Your task to perform on an android device: Open Google Chrome and click the shortcut for Amazon.com Image 0: 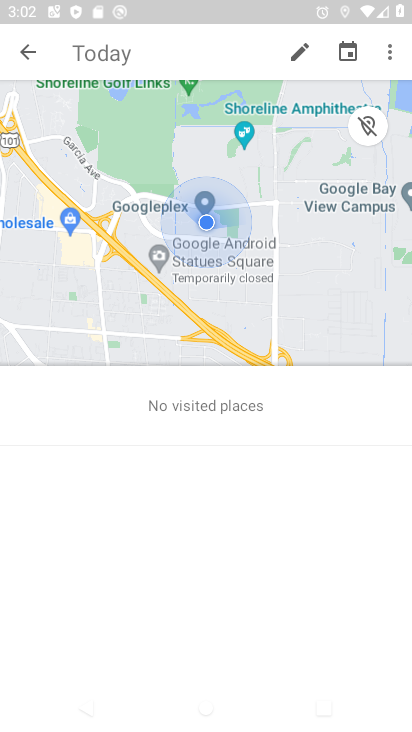
Step 0: press home button
Your task to perform on an android device: Open Google Chrome and click the shortcut for Amazon.com Image 1: 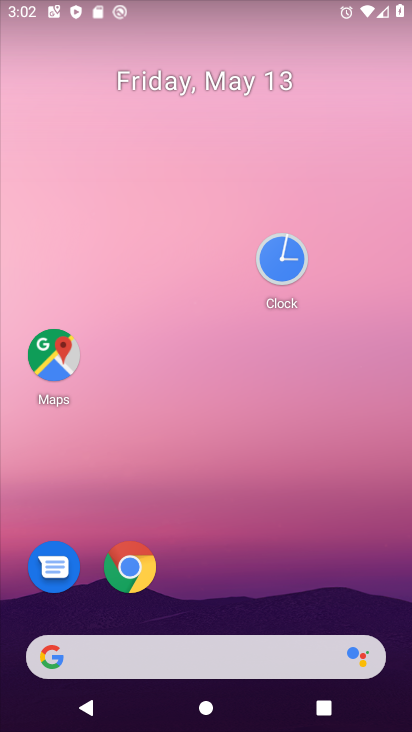
Step 1: click (140, 583)
Your task to perform on an android device: Open Google Chrome and click the shortcut for Amazon.com Image 2: 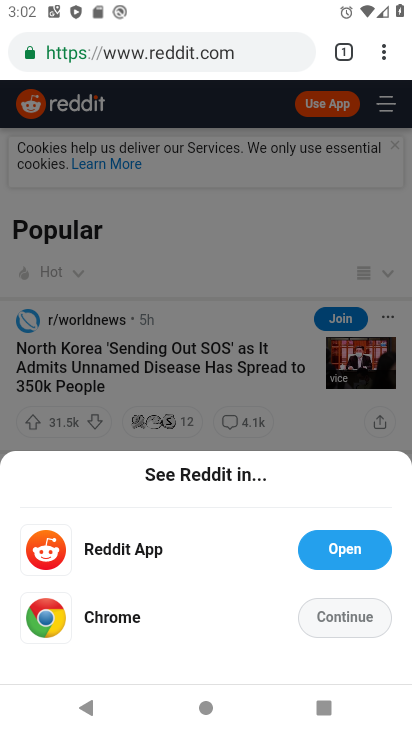
Step 2: click (125, 657)
Your task to perform on an android device: Open Google Chrome and click the shortcut for Amazon.com Image 3: 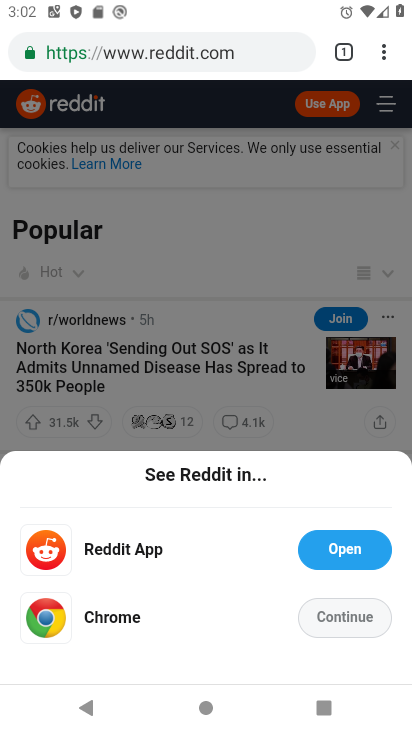
Step 3: click (133, 611)
Your task to perform on an android device: Open Google Chrome and click the shortcut for Amazon.com Image 4: 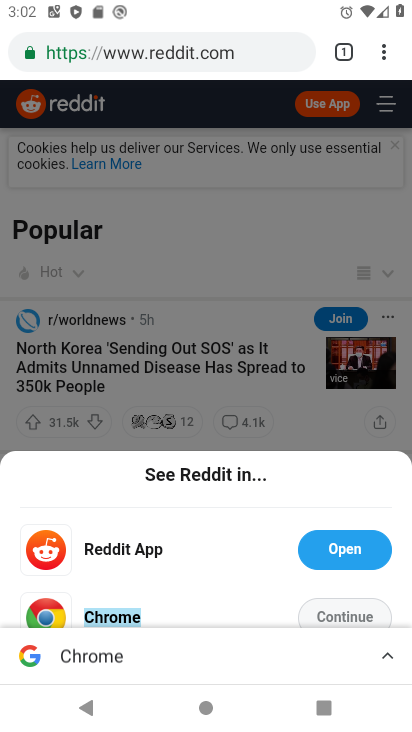
Step 4: click (358, 615)
Your task to perform on an android device: Open Google Chrome and click the shortcut for Amazon.com Image 5: 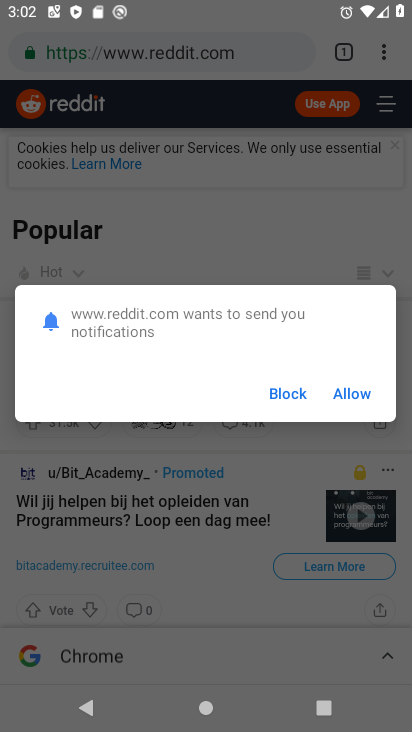
Step 5: click (339, 380)
Your task to perform on an android device: Open Google Chrome and click the shortcut for Amazon.com Image 6: 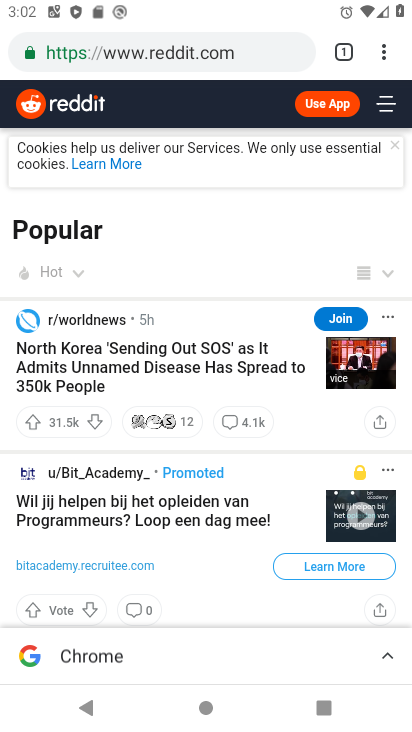
Step 6: click (249, 52)
Your task to perform on an android device: Open Google Chrome and click the shortcut for Amazon.com Image 7: 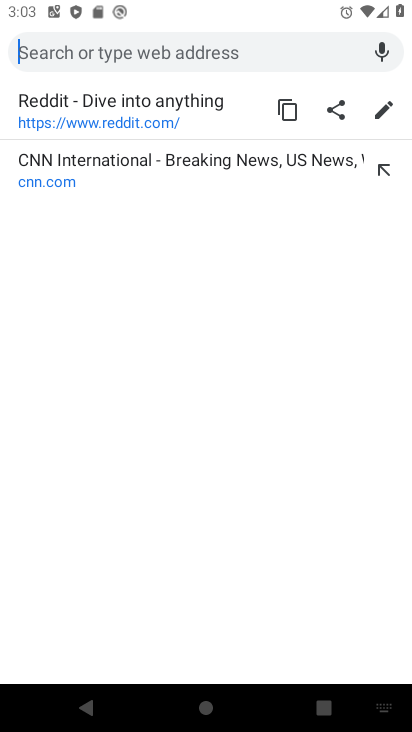
Step 7: press back button
Your task to perform on an android device: Open Google Chrome and click the shortcut for Amazon.com Image 8: 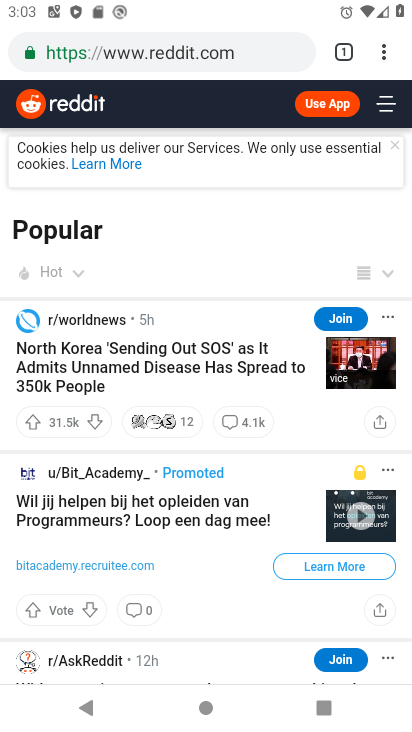
Step 8: press back button
Your task to perform on an android device: Open Google Chrome and click the shortcut for Amazon.com Image 9: 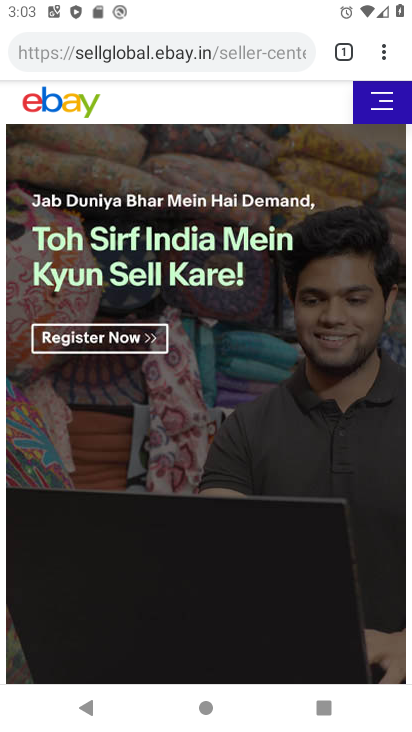
Step 9: press back button
Your task to perform on an android device: Open Google Chrome and click the shortcut for Amazon.com Image 10: 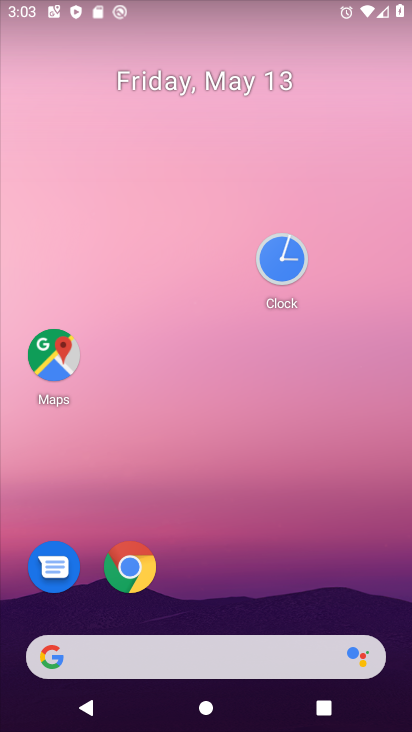
Step 10: click (137, 564)
Your task to perform on an android device: Open Google Chrome and click the shortcut for Amazon.com Image 11: 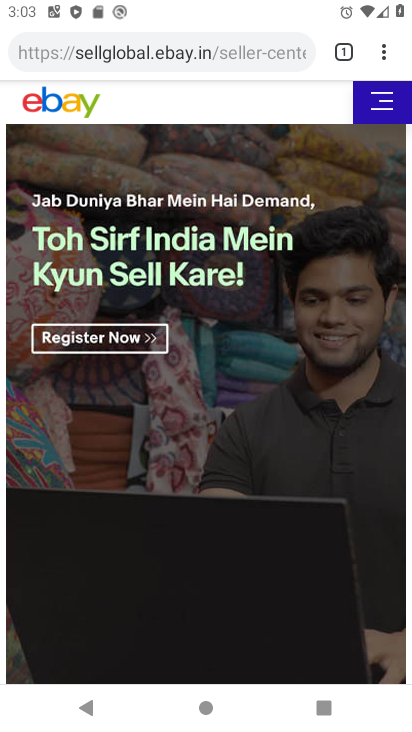
Step 11: click (338, 43)
Your task to perform on an android device: Open Google Chrome and click the shortcut for Amazon.com Image 12: 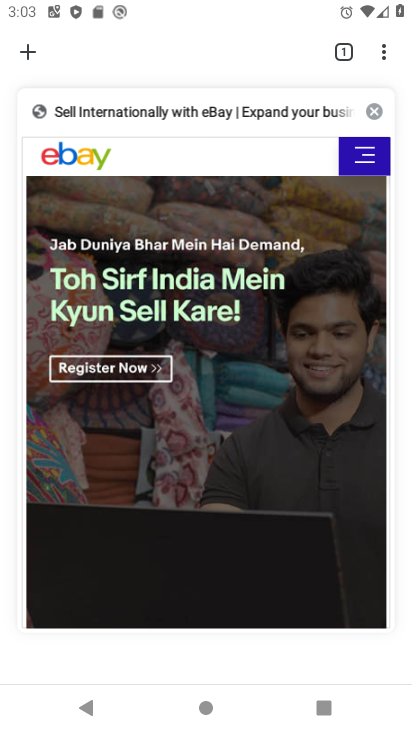
Step 12: click (34, 49)
Your task to perform on an android device: Open Google Chrome and click the shortcut for Amazon.com Image 13: 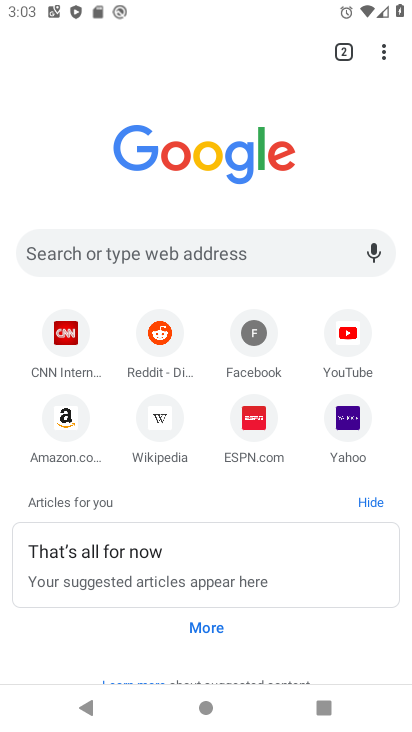
Step 13: click (78, 450)
Your task to perform on an android device: Open Google Chrome and click the shortcut for Amazon.com Image 14: 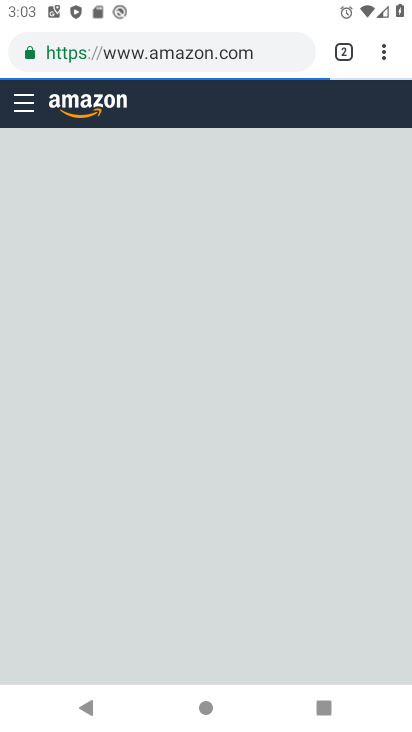
Step 14: task complete